Your task to perform on an android device: see tabs open on other devices in the chrome app Image 0: 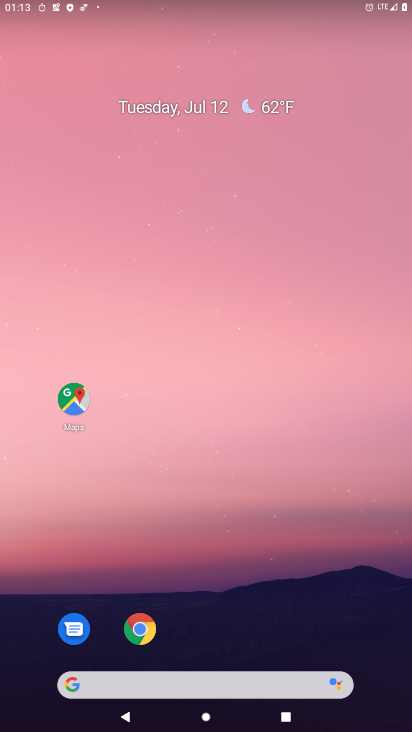
Step 0: drag from (221, 576) to (269, 5)
Your task to perform on an android device: see tabs open on other devices in the chrome app Image 1: 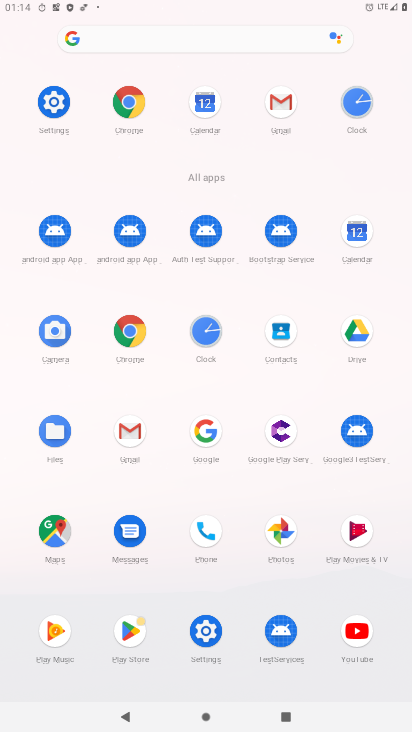
Step 1: click (136, 336)
Your task to perform on an android device: see tabs open on other devices in the chrome app Image 2: 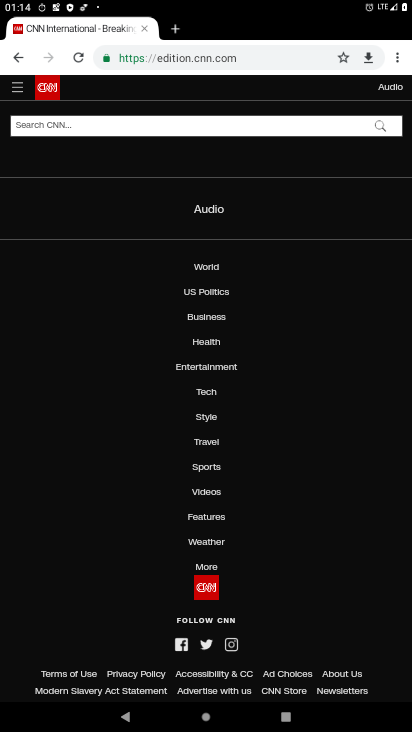
Step 2: task complete